Your task to perform on an android device: turn notification dots off Image 0: 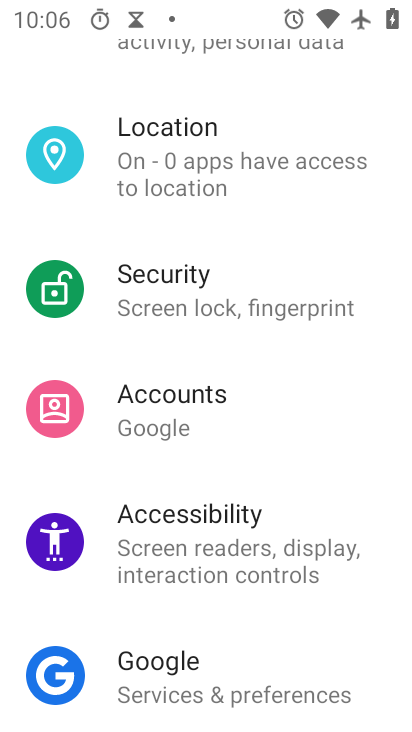
Step 0: press home button
Your task to perform on an android device: turn notification dots off Image 1: 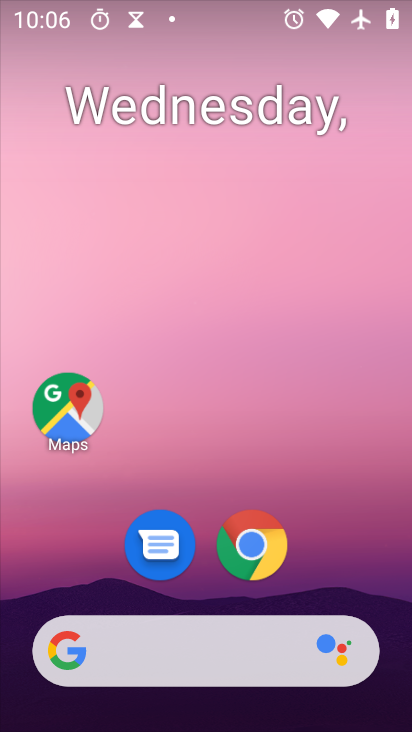
Step 1: drag from (203, 647) to (319, 36)
Your task to perform on an android device: turn notification dots off Image 2: 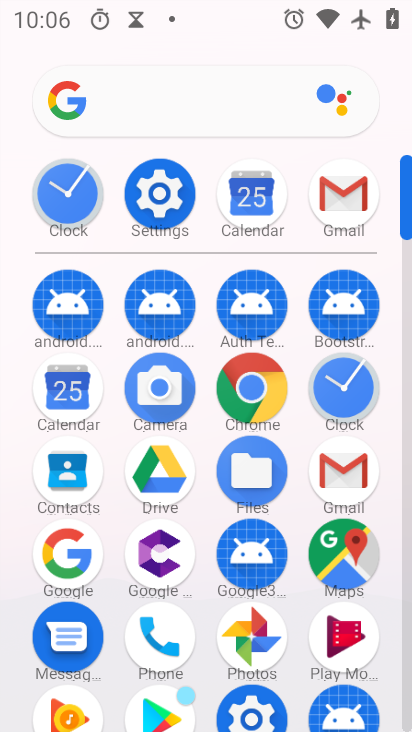
Step 2: click (164, 211)
Your task to perform on an android device: turn notification dots off Image 3: 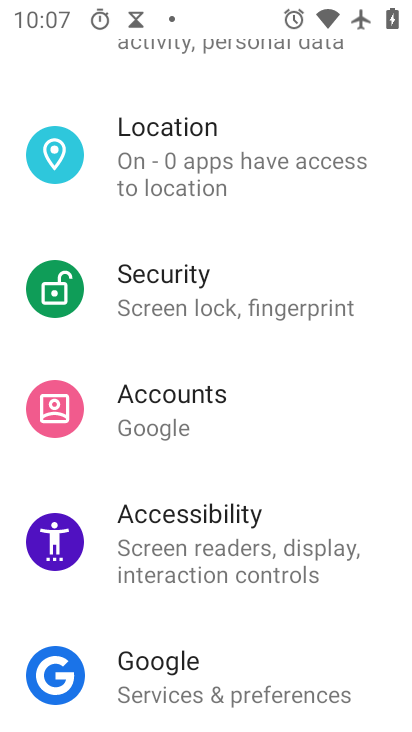
Step 3: drag from (296, 104) to (228, 615)
Your task to perform on an android device: turn notification dots off Image 4: 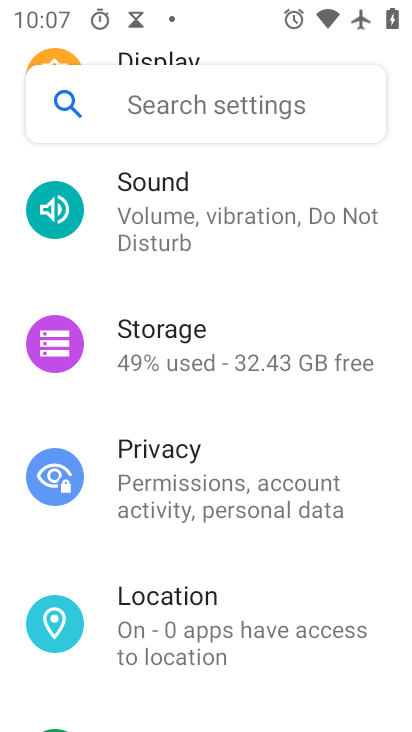
Step 4: drag from (265, 264) to (224, 546)
Your task to perform on an android device: turn notification dots off Image 5: 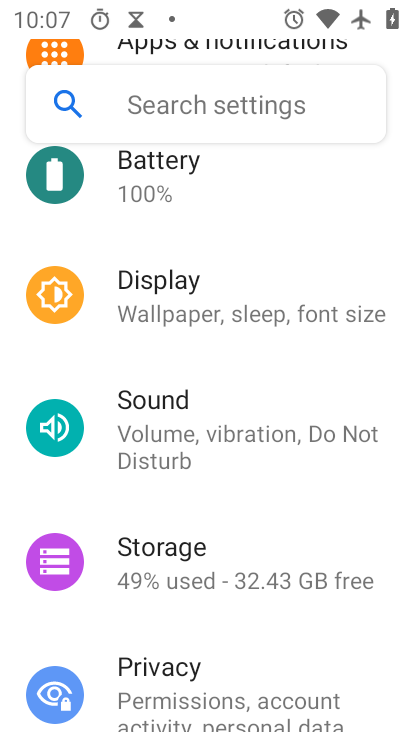
Step 5: drag from (290, 225) to (206, 702)
Your task to perform on an android device: turn notification dots off Image 6: 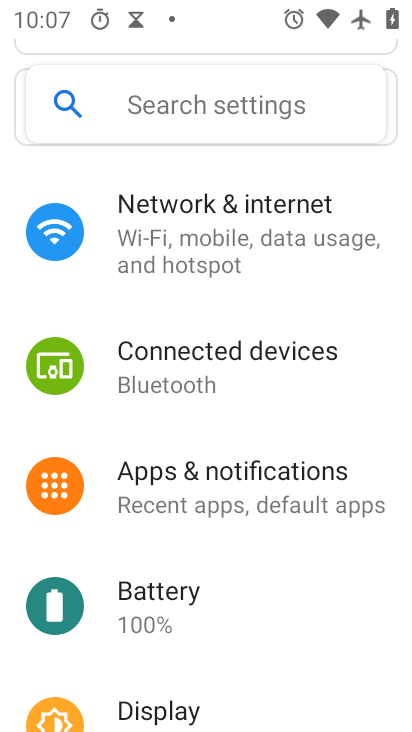
Step 6: click (231, 491)
Your task to perform on an android device: turn notification dots off Image 7: 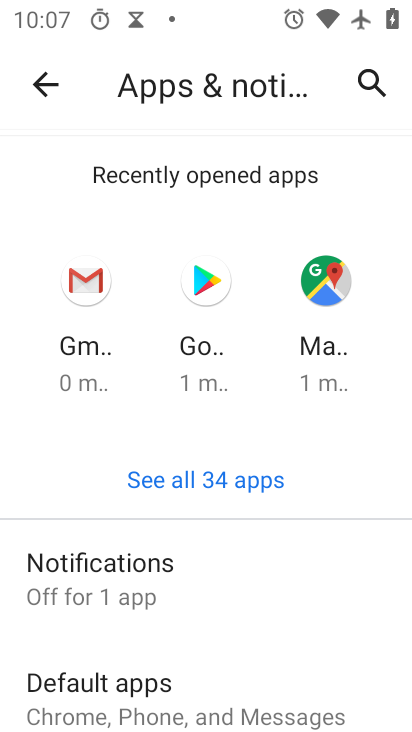
Step 7: click (137, 590)
Your task to perform on an android device: turn notification dots off Image 8: 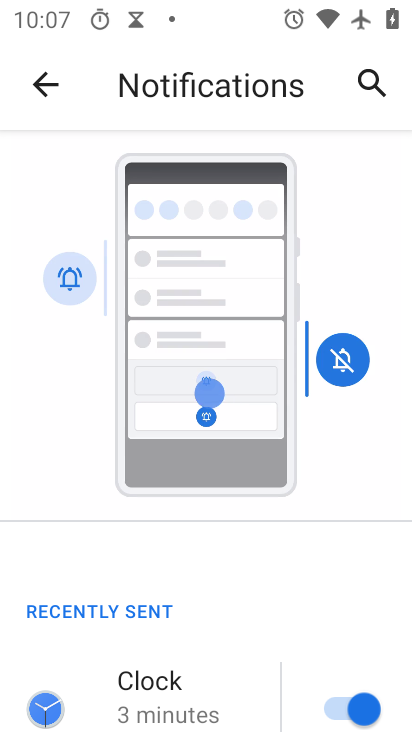
Step 8: drag from (206, 667) to (395, 138)
Your task to perform on an android device: turn notification dots off Image 9: 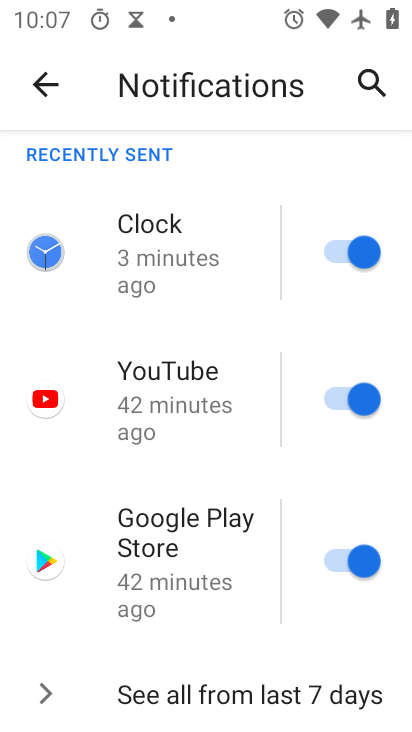
Step 9: drag from (238, 659) to (407, 112)
Your task to perform on an android device: turn notification dots off Image 10: 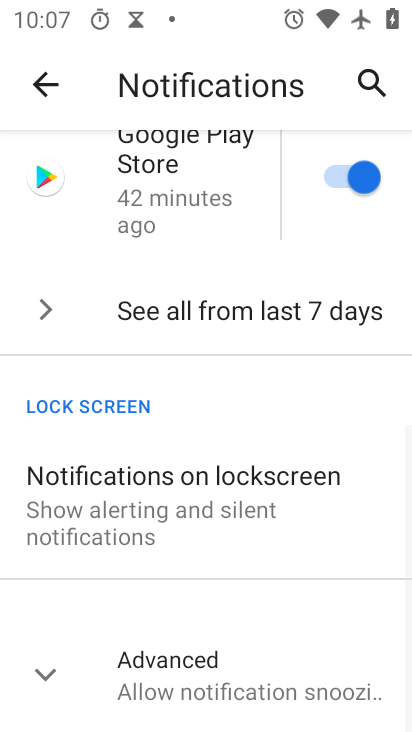
Step 10: click (162, 662)
Your task to perform on an android device: turn notification dots off Image 11: 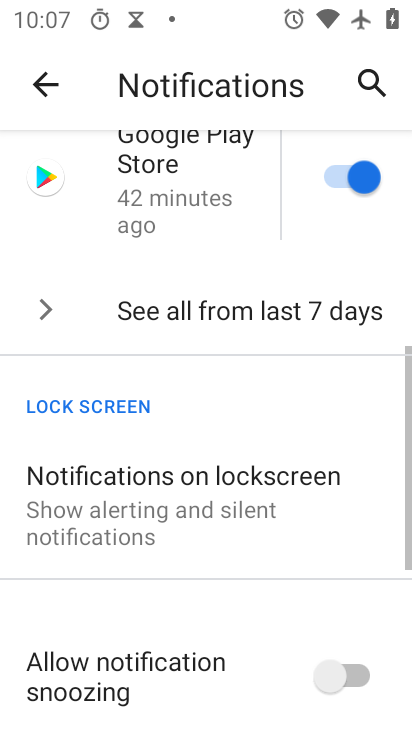
Step 11: drag from (204, 639) to (384, 129)
Your task to perform on an android device: turn notification dots off Image 12: 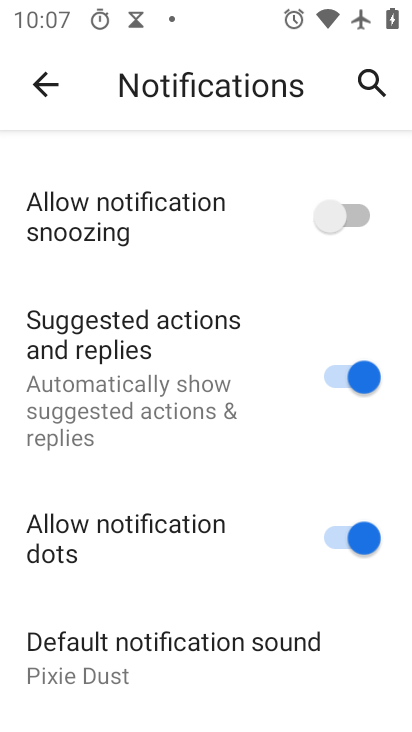
Step 12: click (340, 532)
Your task to perform on an android device: turn notification dots off Image 13: 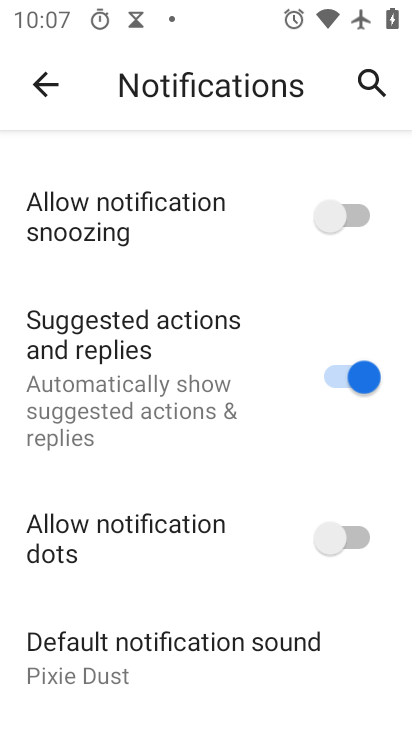
Step 13: task complete